Your task to perform on an android device: Open Yahoo.com Image 0: 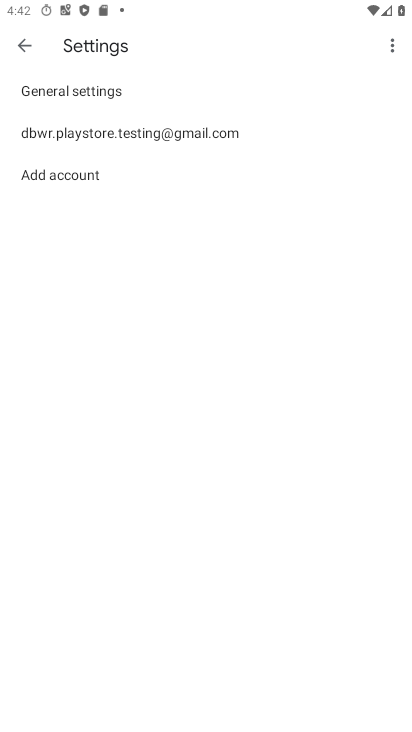
Step 0: click (24, 48)
Your task to perform on an android device: Open Yahoo.com Image 1: 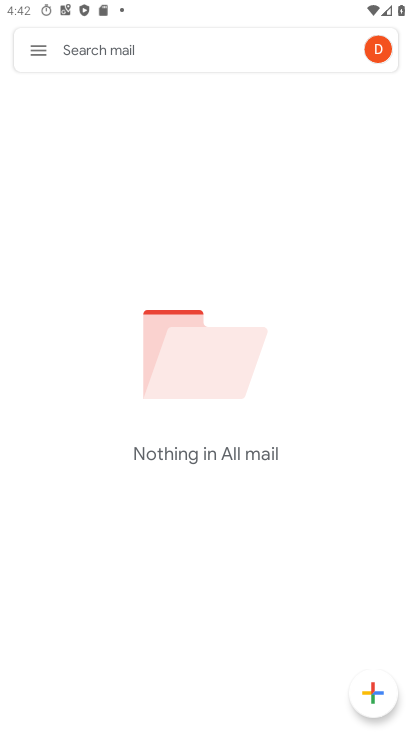
Step 1: press back button
Your task to perform on an android device: Open Yahoo.com Image 2: 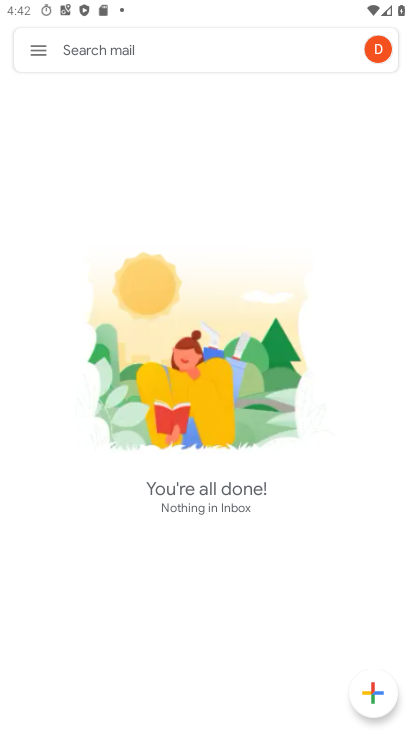
Step 2: press back button
Your task to perform on an android device: Open Yahoo.com Image 3: 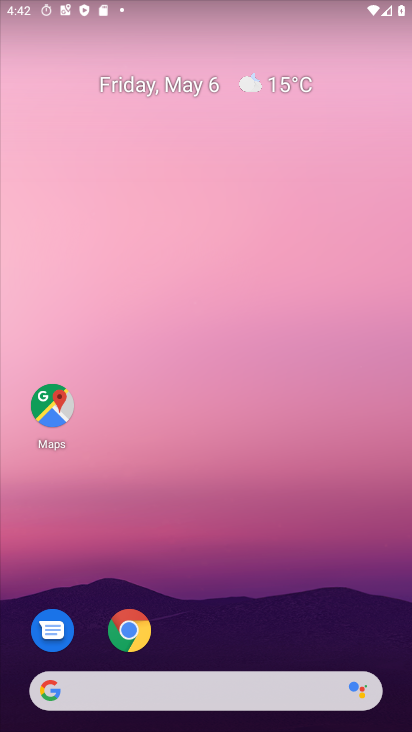
Step 3: click (128, 630)
Your task to perform on an android device: Open Yahoo.com Image 4: 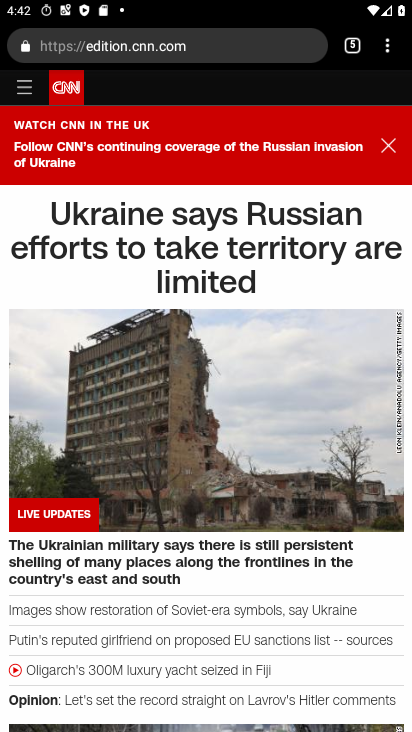
Step 4: click (355, 50)
Your task to perform on an android device: Open Yahoo.com Image 5: 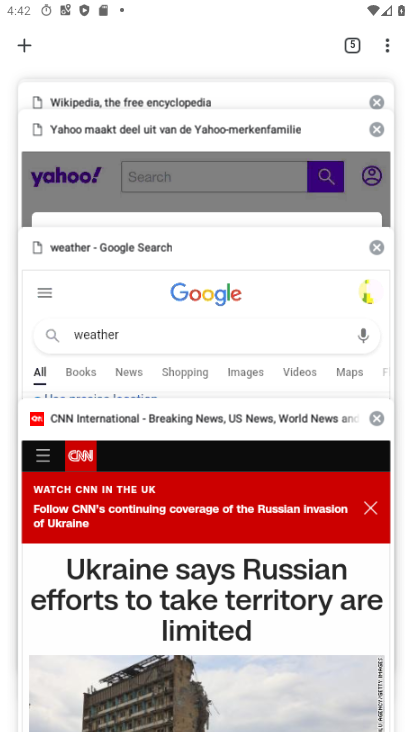
Step 5: click (94, 165)
Your task to perform on an android device: Open Yahoo.com Image 6: 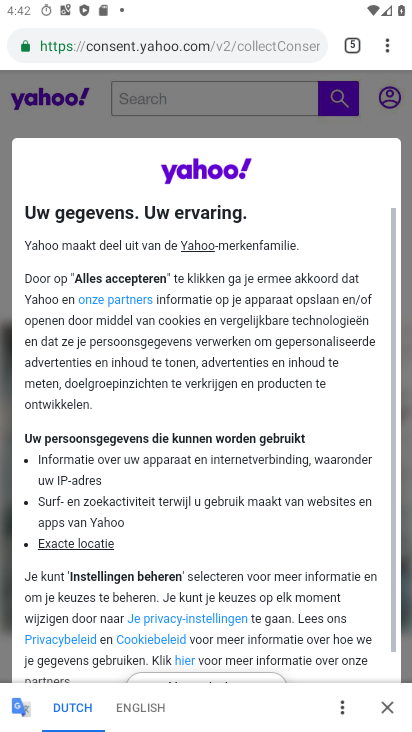
Step 6: task complete